Your task to perform on an android device: Open Google Chrome Image 0: 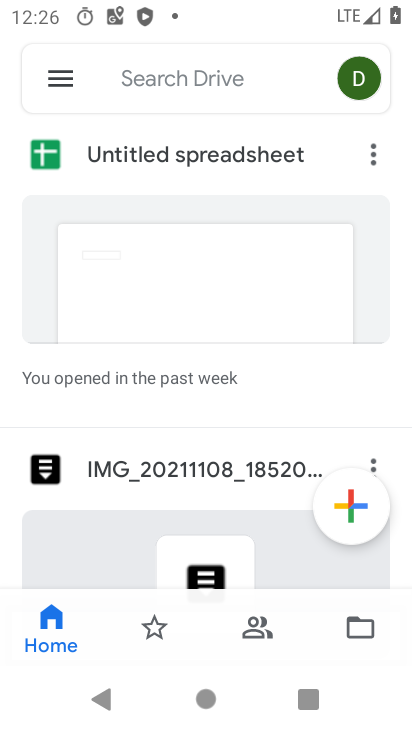
Step 0: press home button
Your task to perform on an android device: Open Google Chrome Image 1: 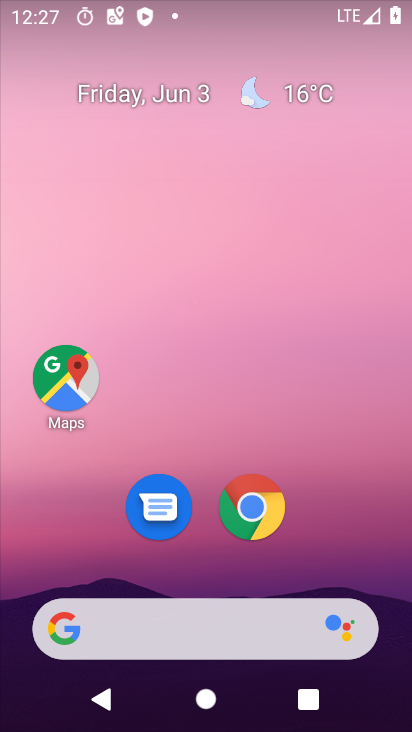
Step 1: click (238, 502)
Your task to perform on an android device: Open Google Chrome Image 2: 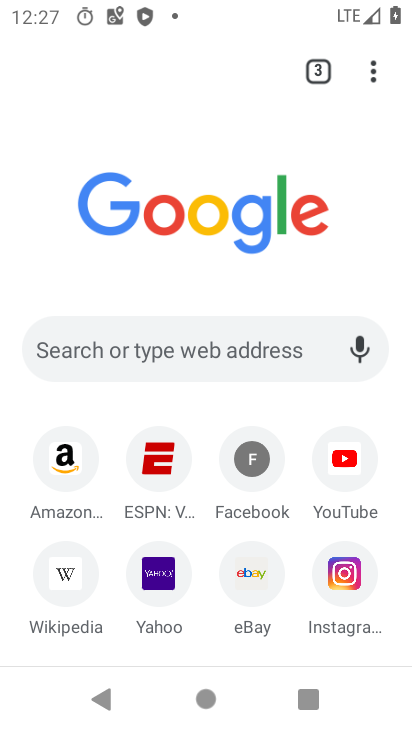
Step 2: task complete